Your task to perform on an android device: Open Google Maps and go to "Timeline" Image 0: 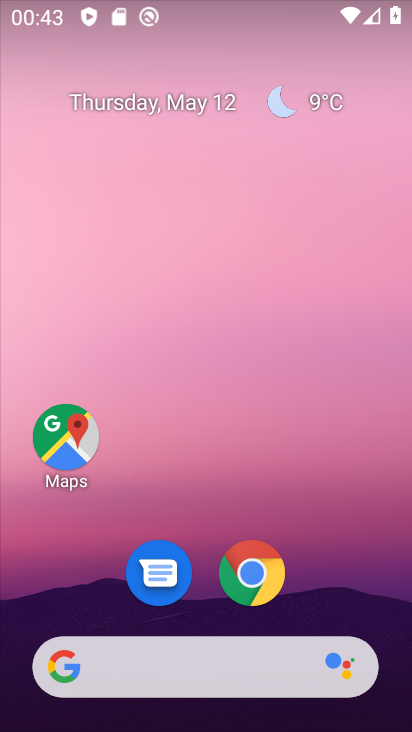
Step 0: click (62, 424)
Your task to perform on an android device: Open Google Maps and go to "Timeline" Image 1: 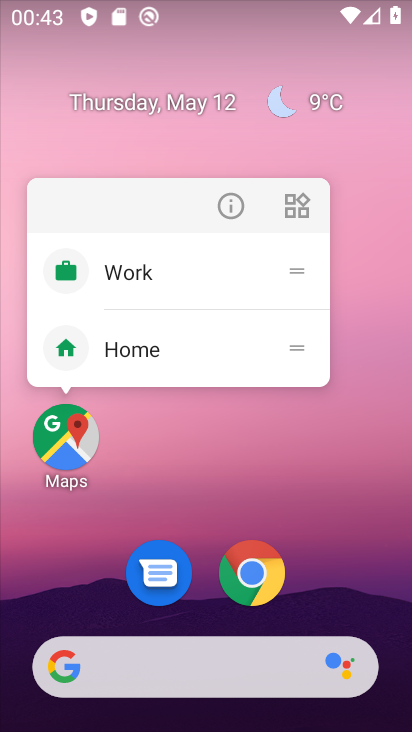
Step 1: click (71, 423)
Your task to perform on an android device: Open Google Maps and go to "Timeline" Image 2: 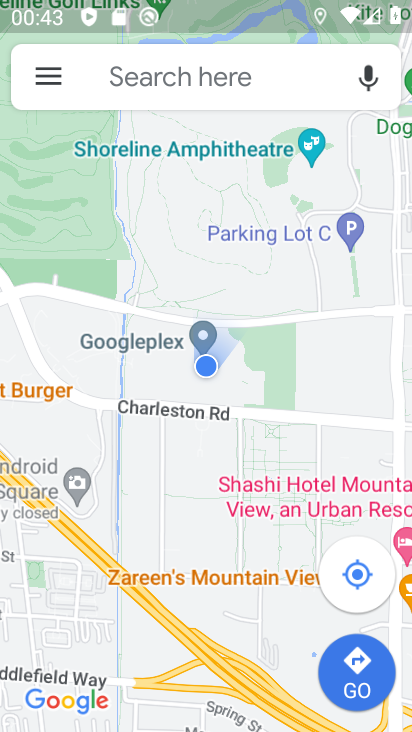
Step 2: click (64, 83)
Your task to perform on an android device: Open Google Maps and go to "Timeline" Image 3: 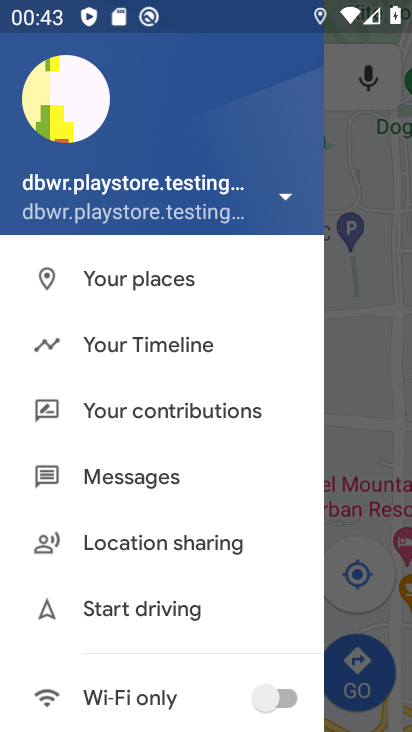
Step 3: click (214, 357)
Your task to perform on an android device: Open Google Maps and go to "Timeline" Image 4: 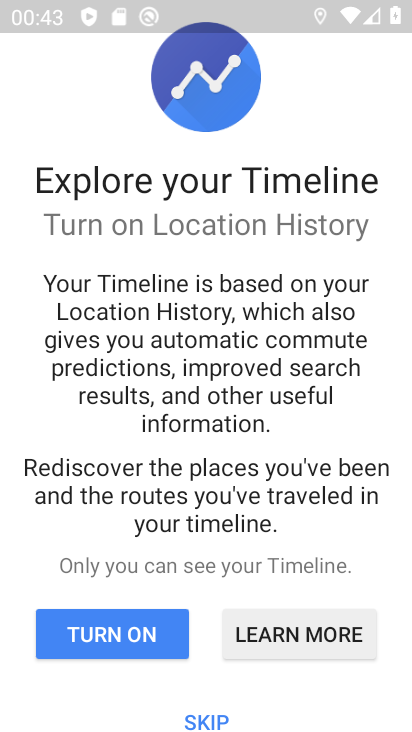
Step 4: drag from (191, 647) to (199, 468)
Your task to perform on an android device: Open Google Maps and go to "Timeline" Image 5: 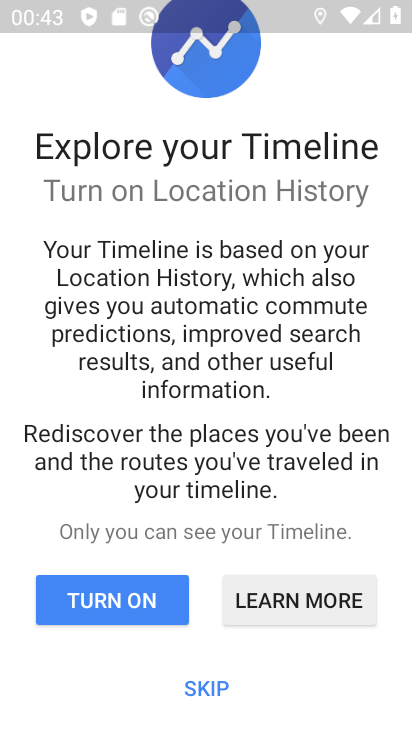
Step 5: click (215, 683)
Your task to perform on an android device: Open Google Maps and go to "Timeline" Image 6: 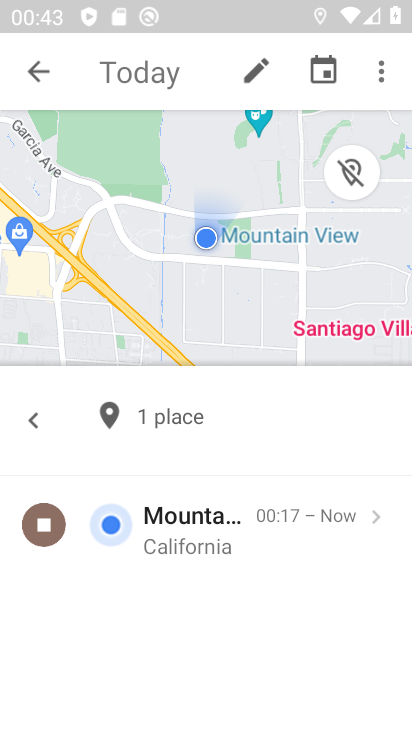
Step 6: task complete